Your task to perform on an android device: turn smart compose on in the gmail app Image 0: 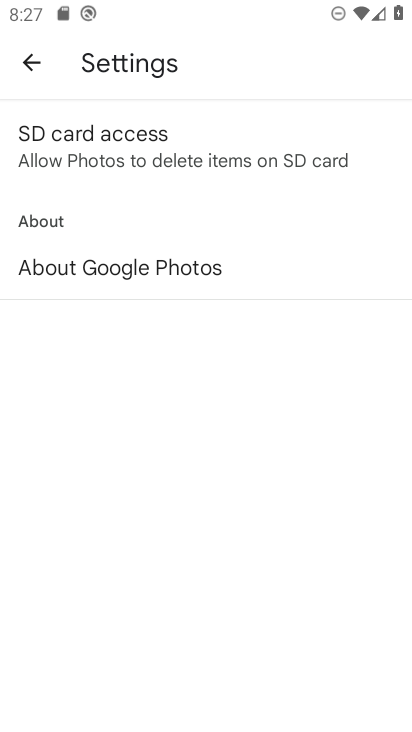
Step 0: press back button
Your task to perform on an android device: turn smart compose on in the gmail app Image 1: 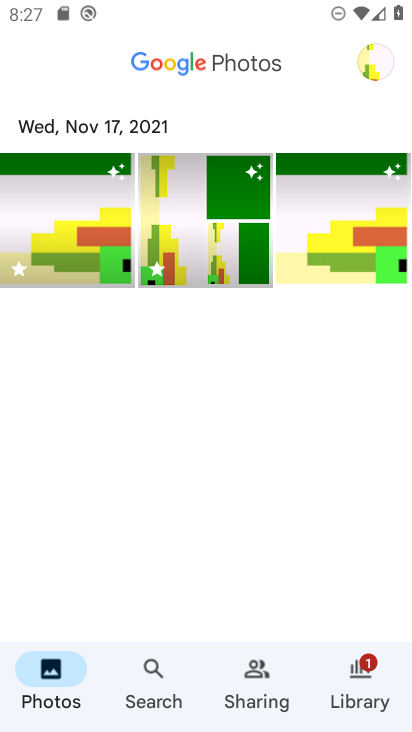
Step 1: press home button
Your task to perform on an android device: turn smart compose on in the gmail app Image 2: 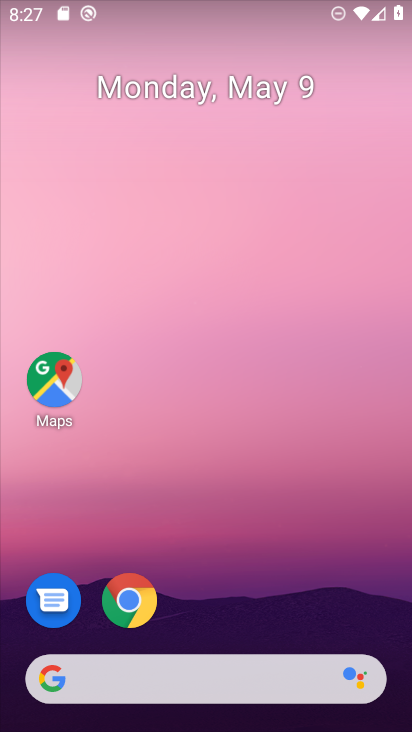
Step 2: drag from (273, 561) to (251, 6)
Your task to perform on an android device: turn smart compose on in the gmail app Image 3: 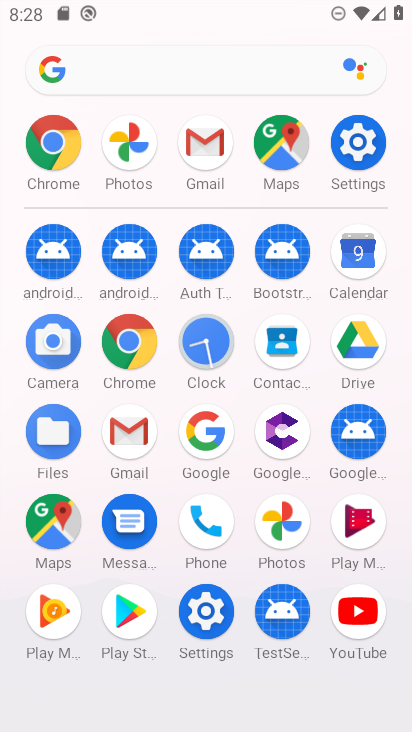
Step 3: click (125, 427)
Your task to perform on an android device: turn smart compose on in the gmail app Image 4: 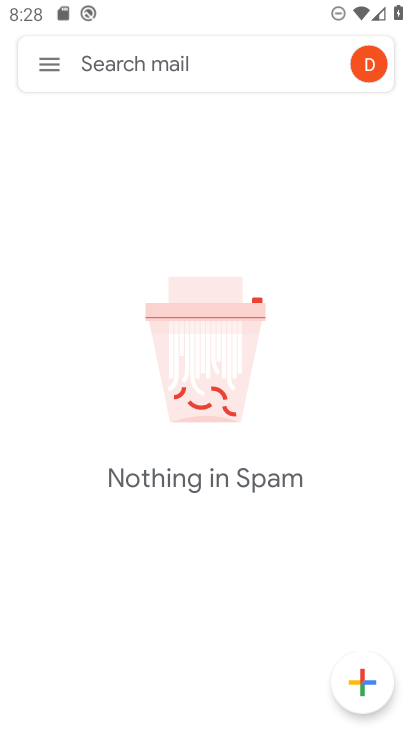
Step 4: click (34, 65)
Your task to perform on an android device: turn smart compose on in the gmail app Image 5: 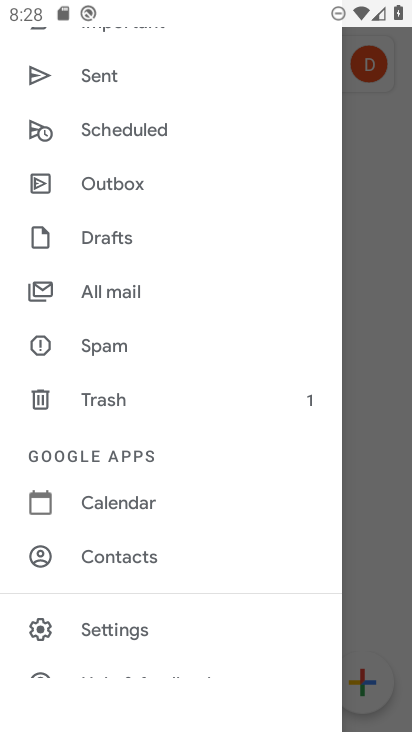
Step 5: click (135, 624)
Your task to perform on an android device: turn smart compose on in the gmail app Image 6: 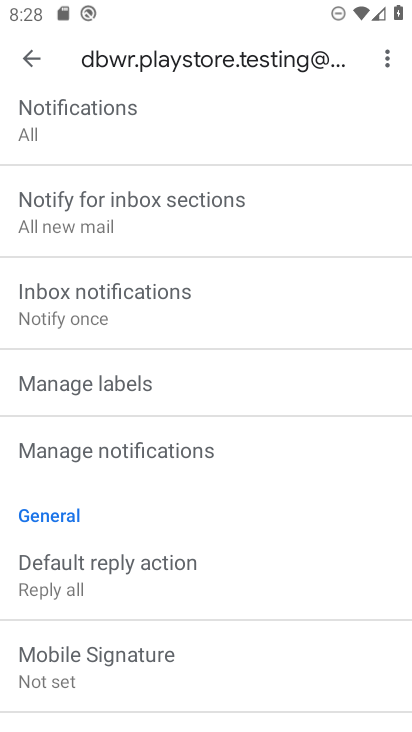
Step 6: task complete